Your task to perform on an android device: Go to accessibility settings Image 0: 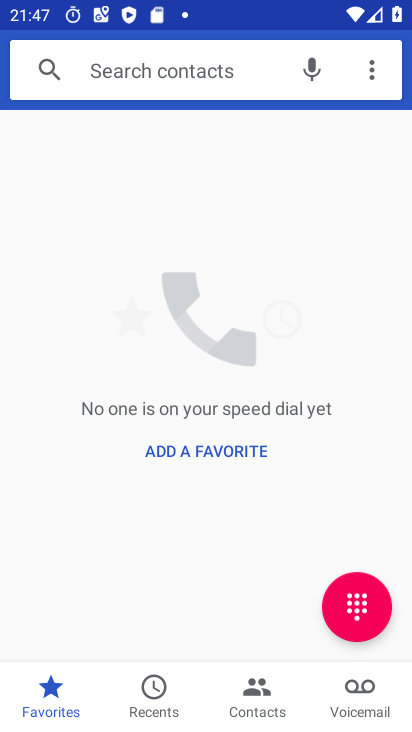
Step 0: press home button
Your task to perform on an android device: Go to accessibility settings Image 1: 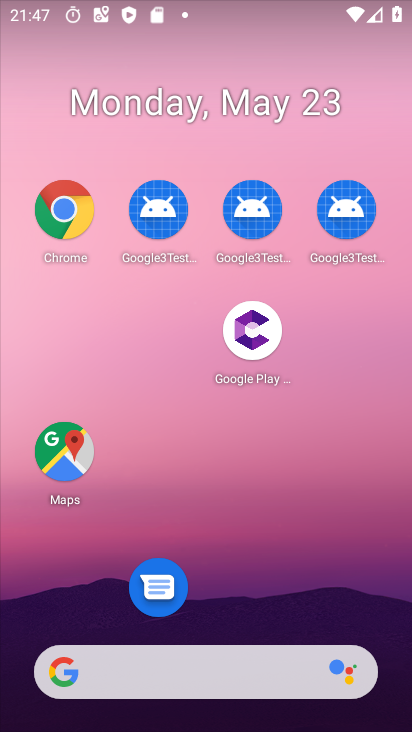
Step 1: drag from (301, 603) to (267, 0)
Your task to perform on an android device: Go to accessibility settings Image 2: 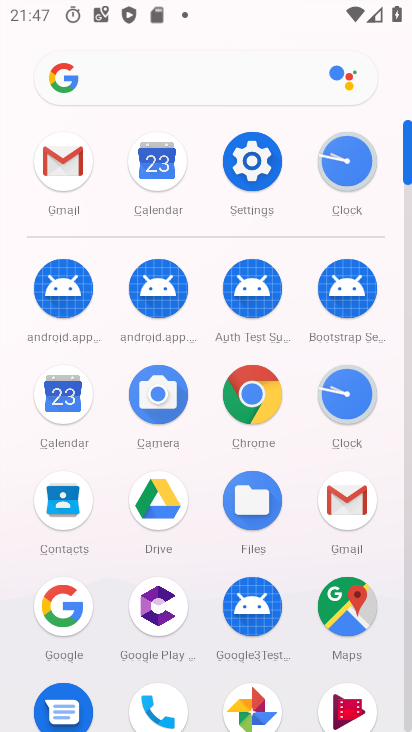
Step 2: click (253, 172)
Your task to perform on an android device: Go to accessibility settings Image 3: 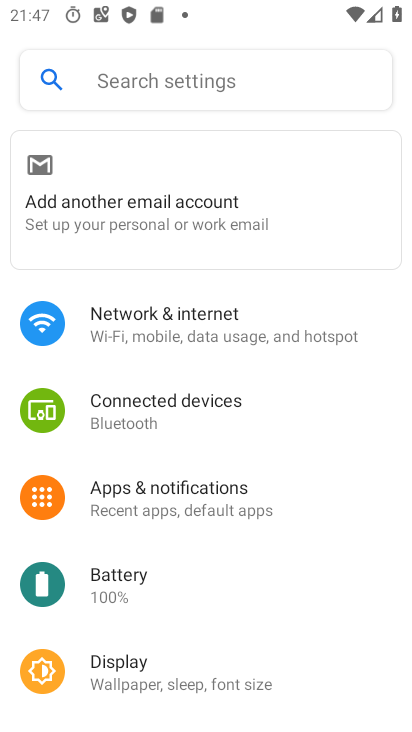
Step 3: drag from (228, 648) to (233, 169)
Your task to perform on an android device: Go to accessibility settings Image 4: 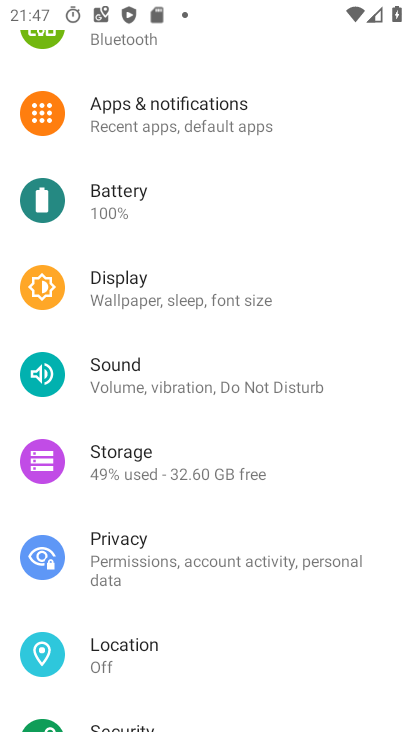
Step 4: drag from (277, 710) to (268, 157)
Your task to perform on an android device: Go to accessibility settings Image 5: 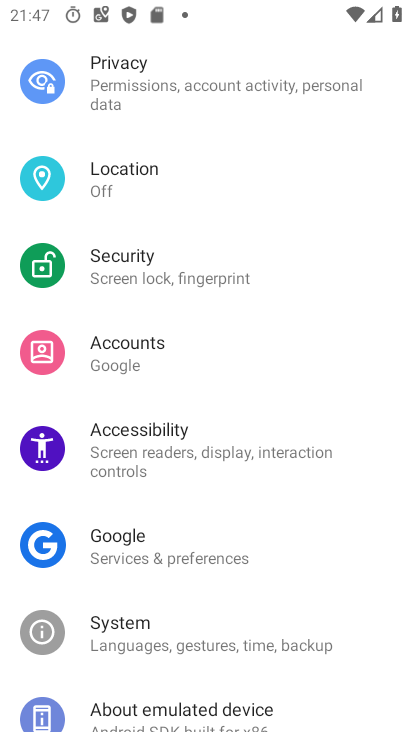
Step 5: click (157, 441)
Your task to perform on an android device: Go to accessibility settings Image 6: 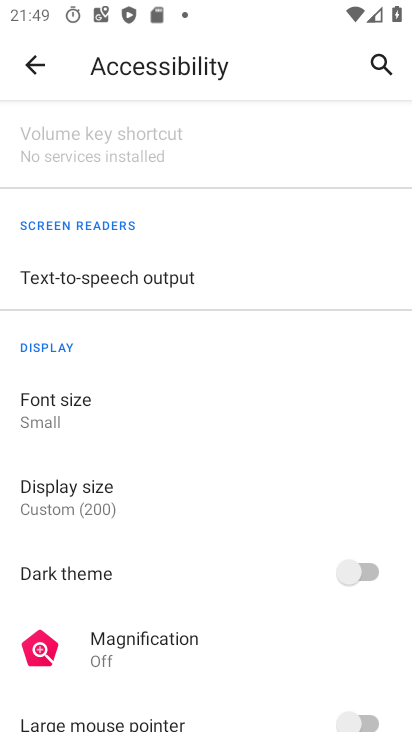
Step 6: task complete